Your task to perform on an android device: turn pop-ups off in chrome Image 0: 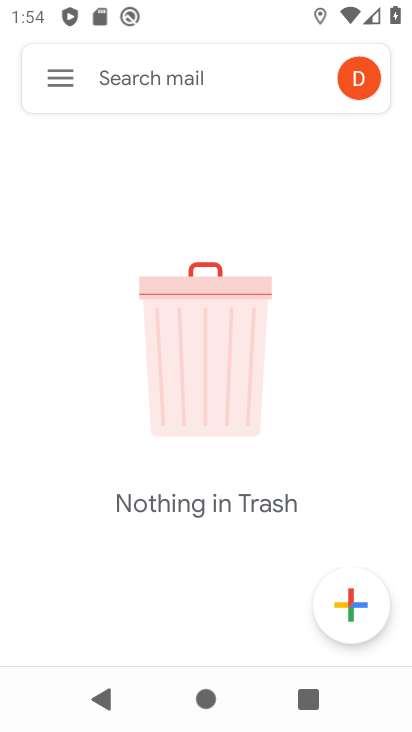
Step 0: press back button
Your task to perform on an android device: turn pop-ups off in chrome Image 1: 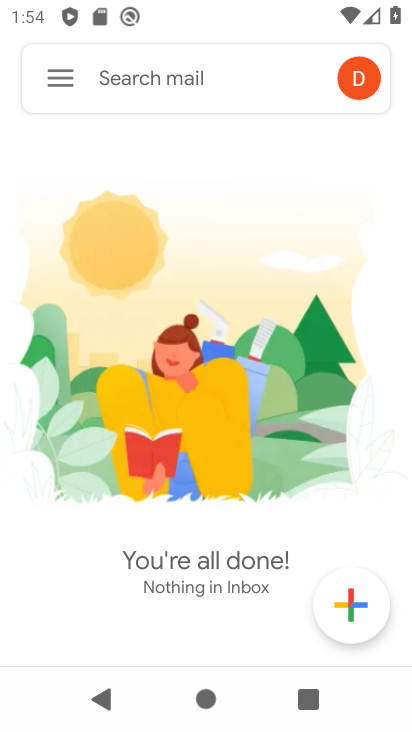
Step 1: press back button
Your task to perform on an android device: turn pop-ups off in chrome Image 2: 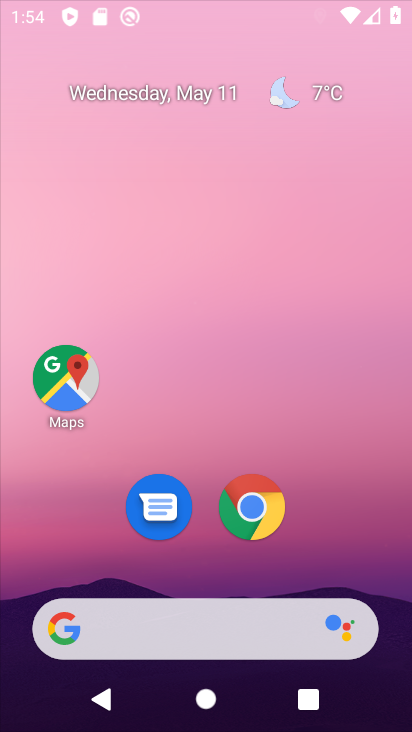
Step 2: press home button
Your task to perform on an android device: turn pop-ups off in chrome Image 3: 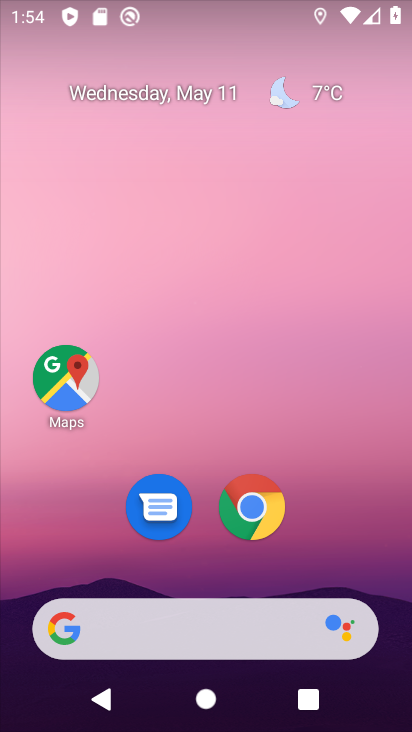
Step 3: drag from (324, 521) to (249, 33)
Your task to perform on an android device: turn pop-ups off in chrome Image 4: 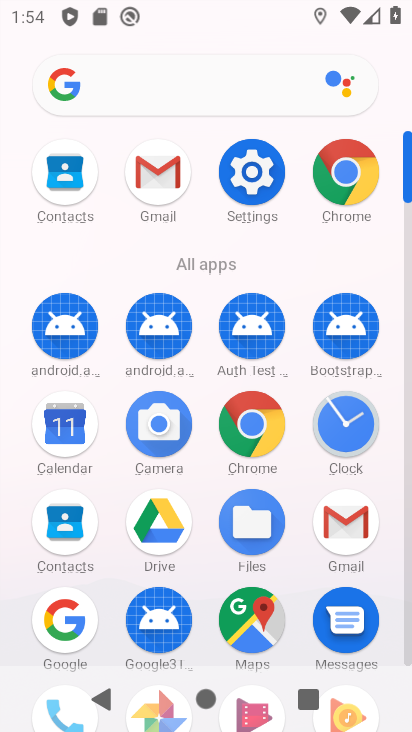
Step 4: drag from (23, 530) to (19, 221)
Your task to perform on an android device: turn pop-ups off in chrome Image 5: 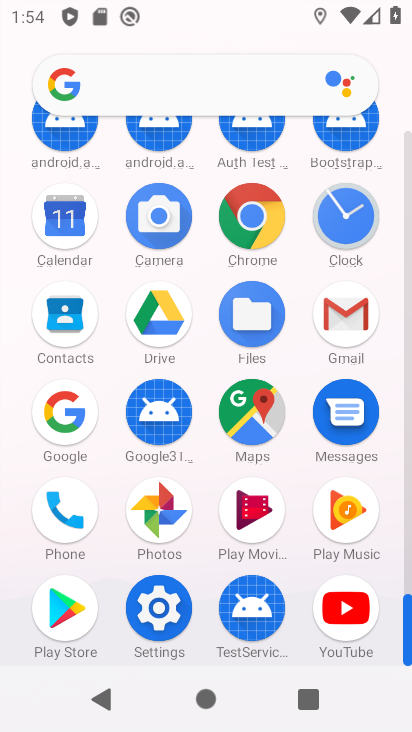
Step 5: click (249, 210)
Your task to perform on an android device: turn pop-ups off in chrome Image 6: 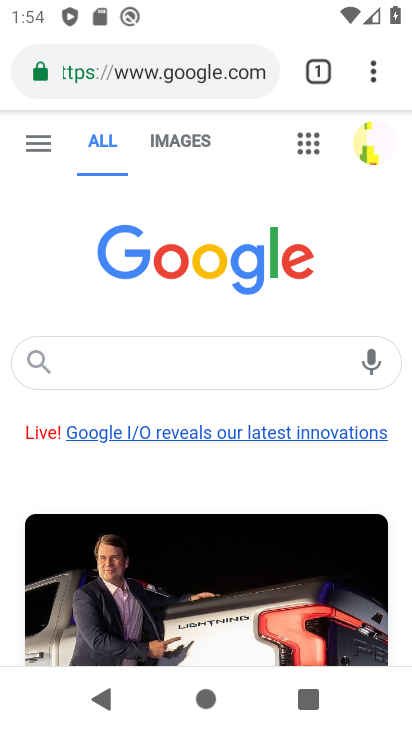
Step 6: drag from (373, 66) to (136, 505)
Your task to perform on an android device: turn pop-ups off in chrome Image 7: 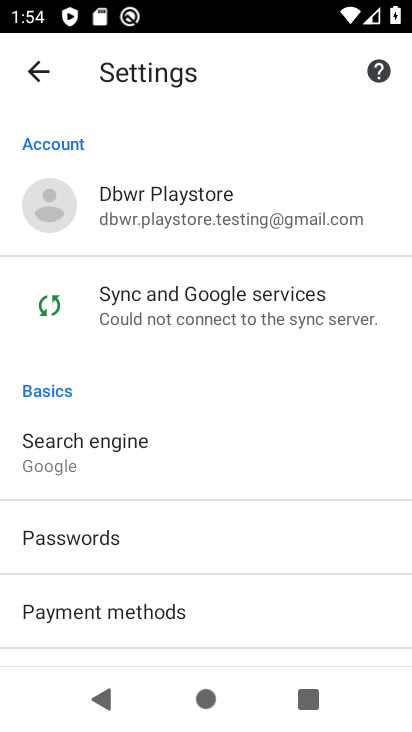
Step 7: drag from (242, 522) to (197, 149)
Your task to perform on an android device: turn pop-ups off in chrome Image 8: 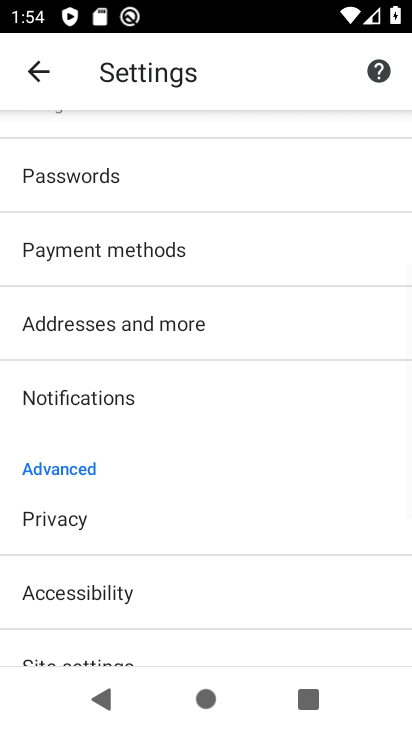
Step 8: drag from (237, 256) to (237, 153)
Your task to perform on an android device: turn pop-ups off in chrome Image 9: 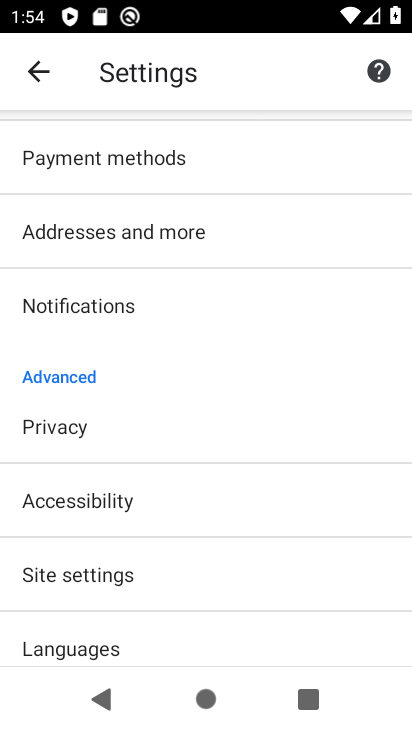
Step 9: drag from (241, 499) to (241, 157)
Your task to perform on an android device: turn pop-ups off in chrome Image 10: 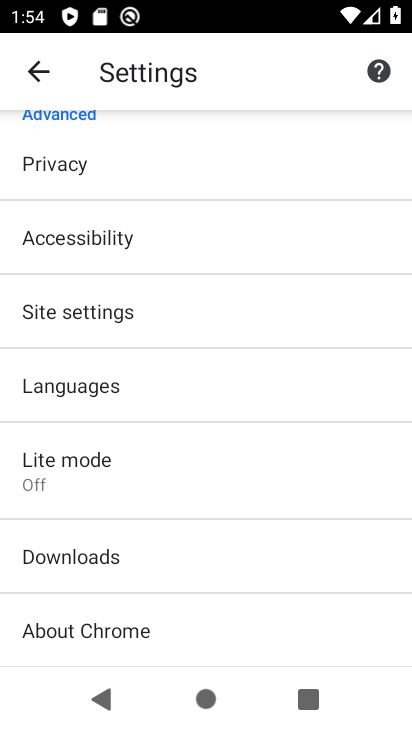
Step 10: click (99, 315)
Your task to perform on an android device: turn pop-ups off in chrome Image 11: 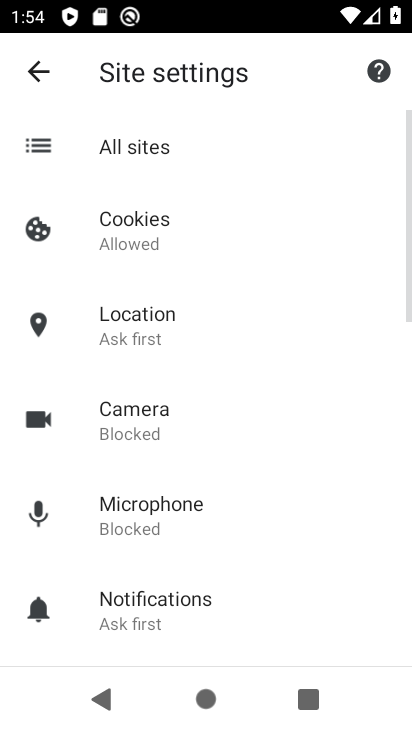
Step 11: drag from (234, 518) to (234, 199)
Your task to perform on an android device: turn pop-ups off in chrome Image 12: 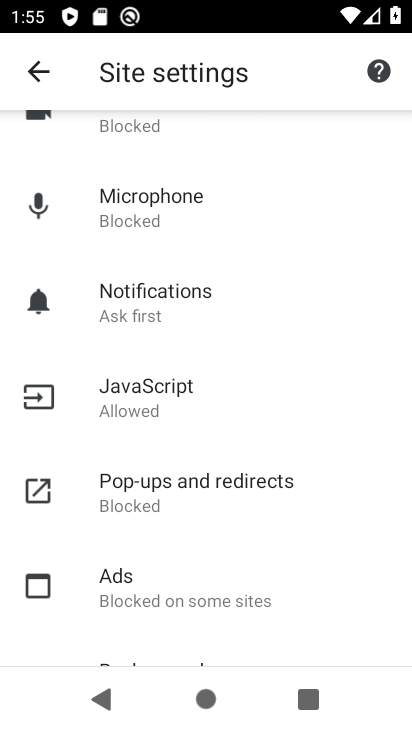
Step 12: click (206, 489)
Your task to perform on an android device: turn pop-ups off in chrome Image 13: 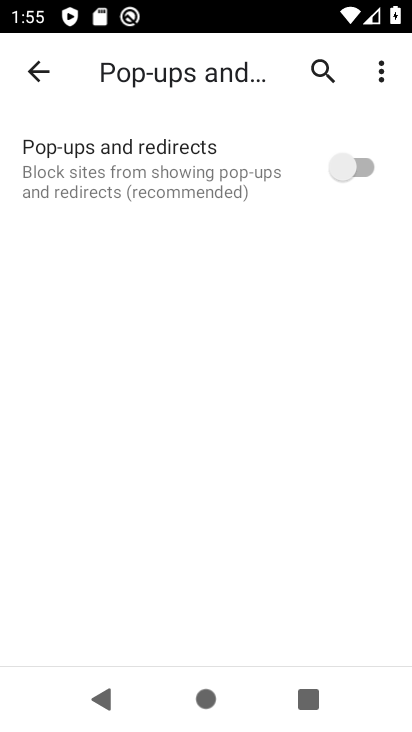
Step 13: task complete